Your task to perform on an android device: Open Amazon Image 0: 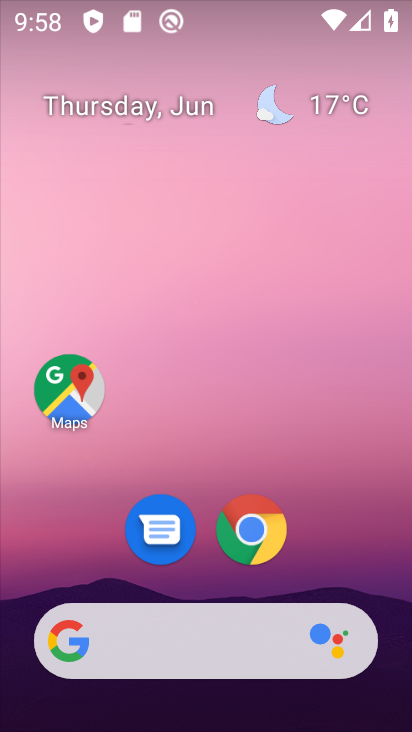
Step 0: click (260, 526)
Your task to perform on an android device: Open Amazon Image 1: 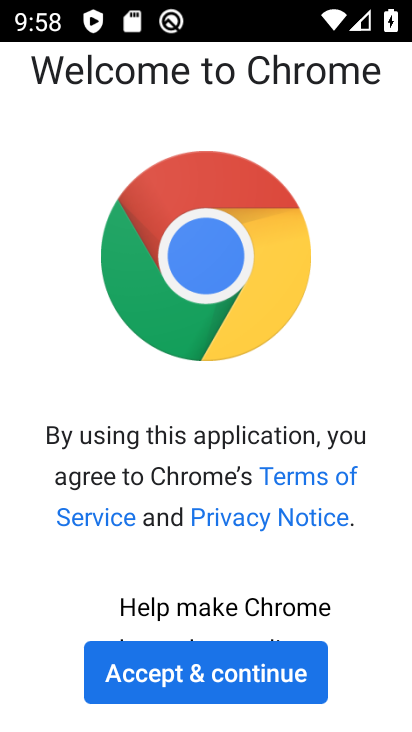
Step 1: click (224, 665)
Your task to perform on an android device: Open Amazon Image 2: 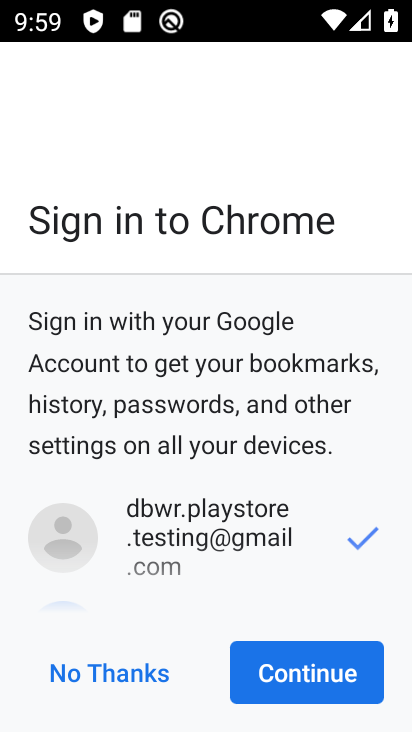
Step 2: click (292, 672)
Your task to perform on an android device: Open Amazon Image 3: 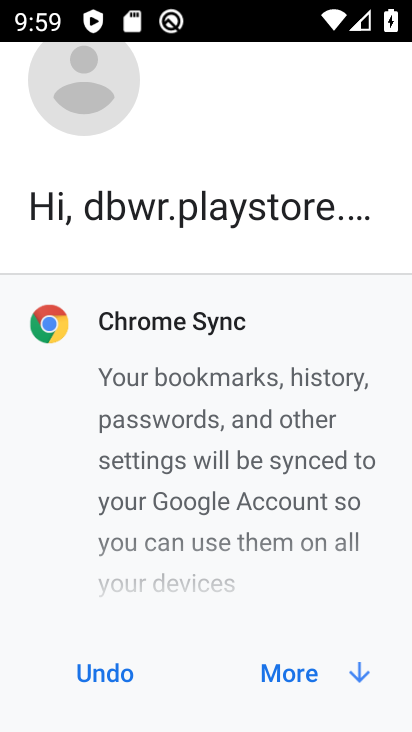
Step 3: click (279, 692)
Your task to perform on an android device: Open Amazon Image 4: 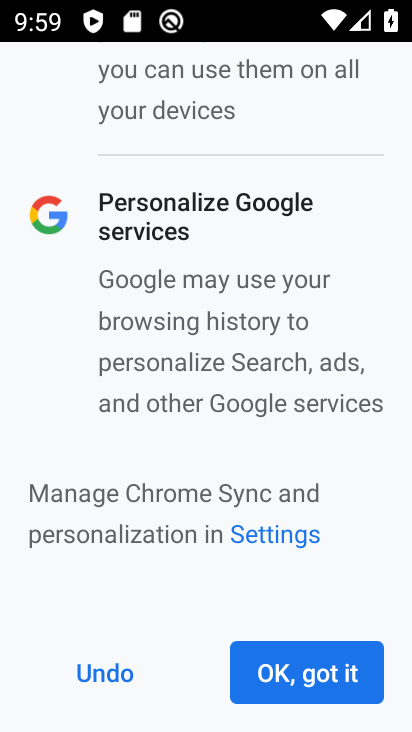
Step 4: click (268, 678)
Your task to perform on an android device: Open Amazon Image 5: 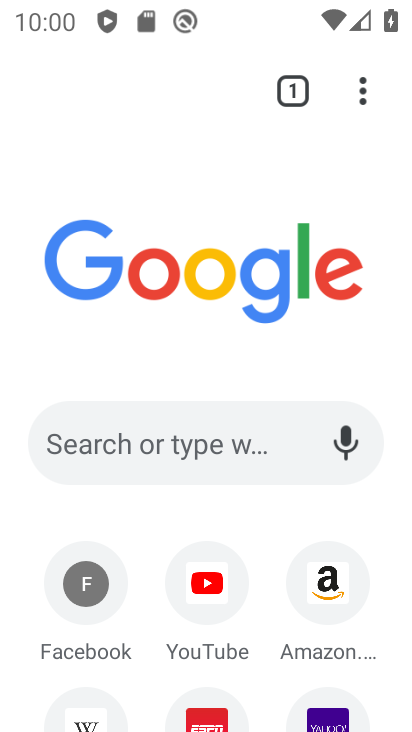
Step 5: click (326, 592)
Your task to perform on an android device: Open Amazon Image 6: 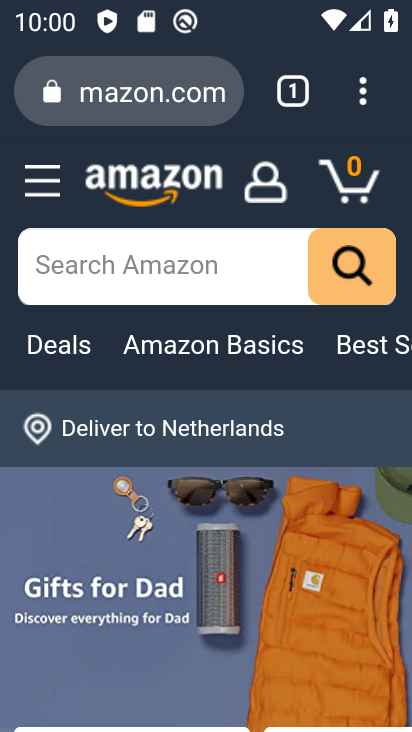
Step 6: task complete